Your task to perform on an android device: find photos in the google photos app Image 0: 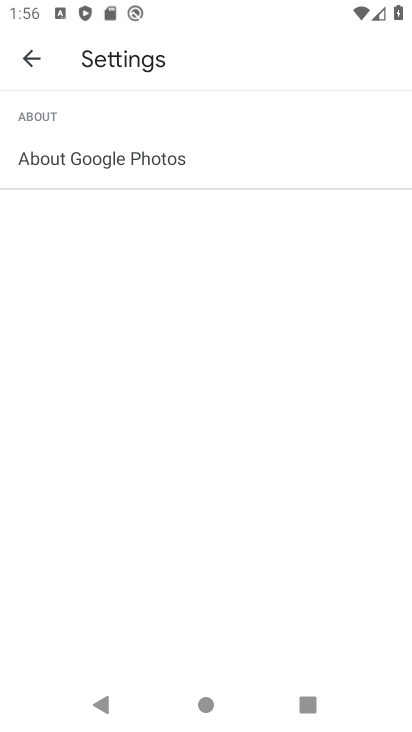
Step 0: press home button
Your task to perform on an android device: find photos in the google photos app Image 1: 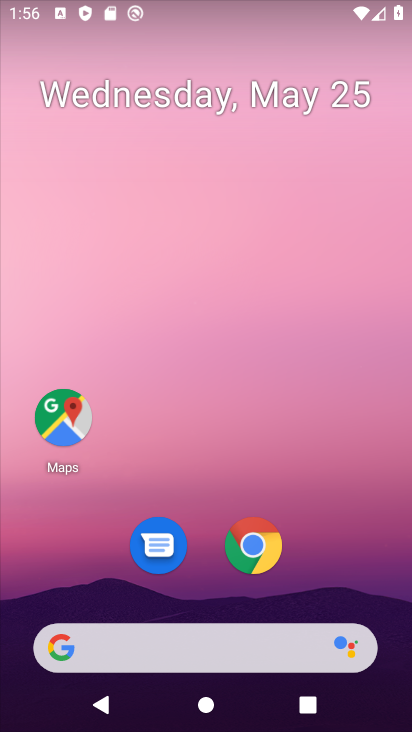
Step 1: drag from (345, 603) to (329, 17)
Your task to perform on an android device: find photos in the google photos app Image 2: 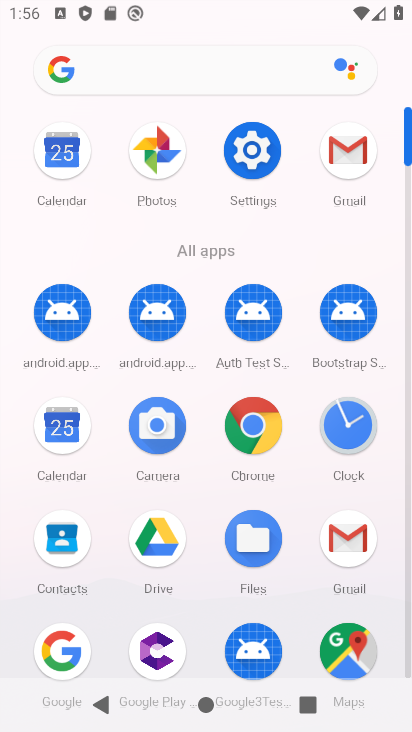
Step 2: click (170, 186)
Your task to perform on an android device: find photos in the google photos app Image 3: 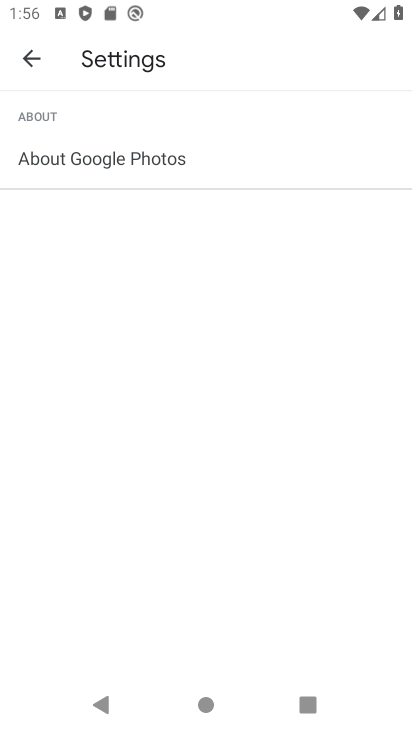
Step 3: task complete